Your task to perform on an android device: delete a single message in the gmail app Image 0: 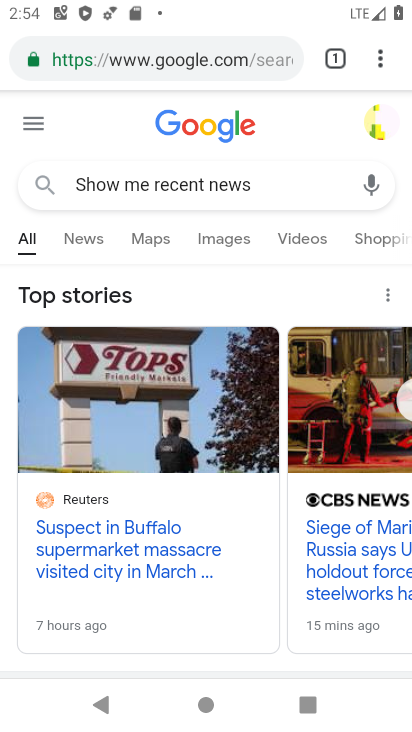
Step 0: press home button
Your task to perform on an android device: delete a single message in the gmail app Image 1: 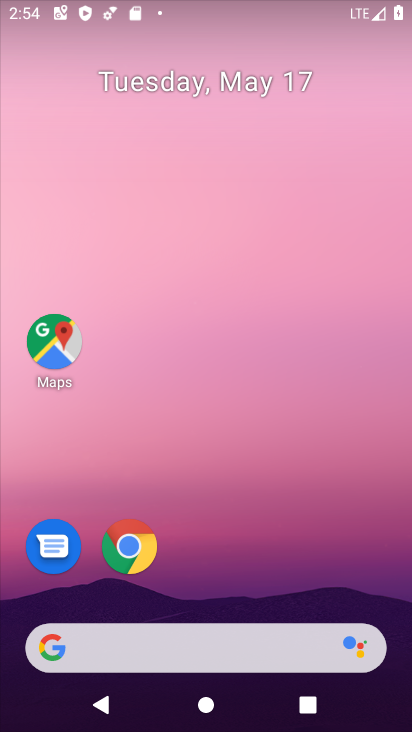
Step 1: drag from (168, 403) to (174, 72)
Your task to perform on an android device: delete a single message in the gmail app Image 2: 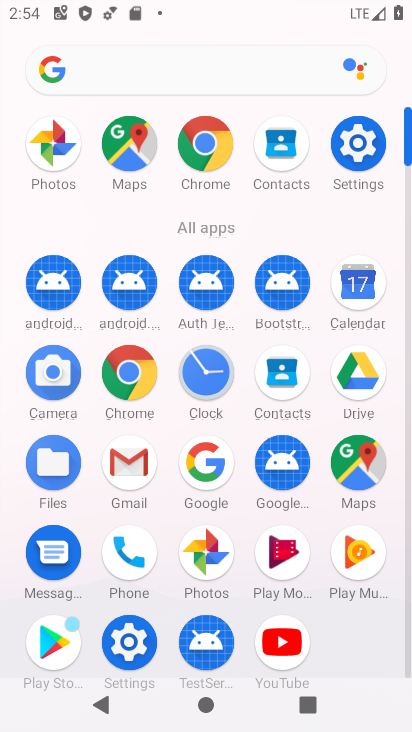
Step 2: click (114, 472)
Your task to perform on an android device: delete a single message in the gmail app Image 3: 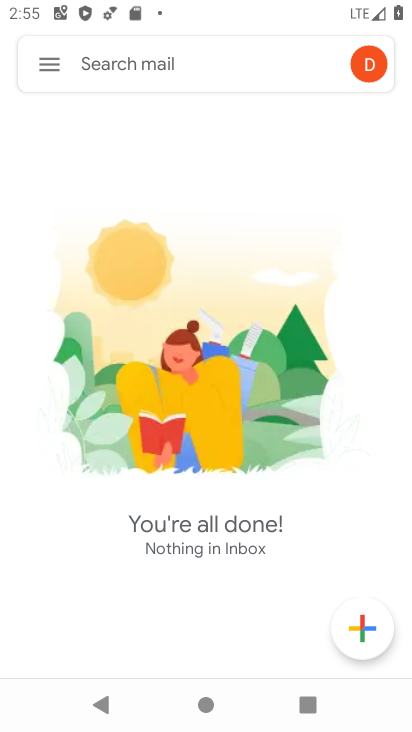
Step 3: click (111, 455)
Your task to perform on an android device: delete a single message in the gmail app Image 4: 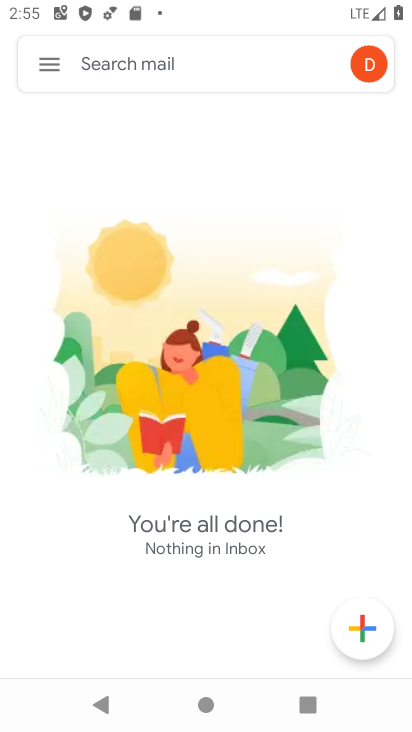
Step 4: task complete